Your task to perform on an android device: Open accessibility settings Image 0: 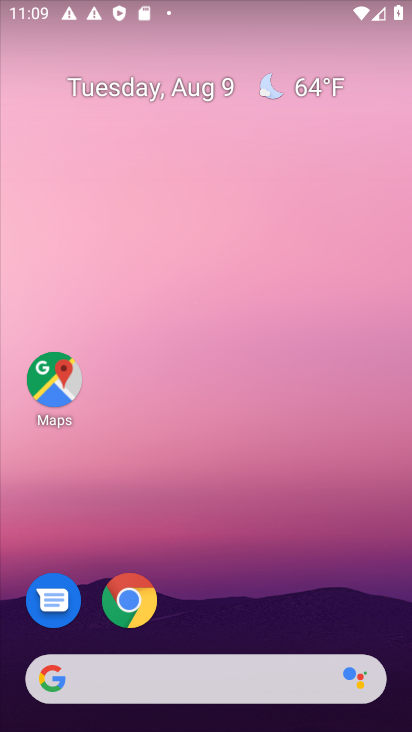
Step 0: drag from (18, 708) to (159, 422)
Your task to perform on an android device: Open accessibility settings Image 1: 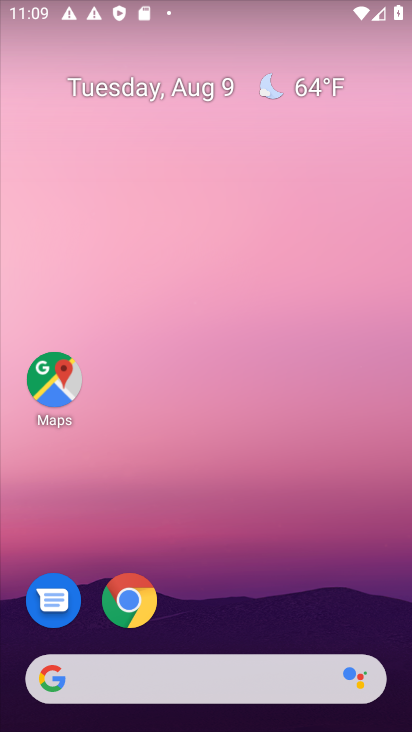
Step 1: drag from (29, 700) to (126, 251)
Your task to perform on an android device: Open accessibility settings Image 2: 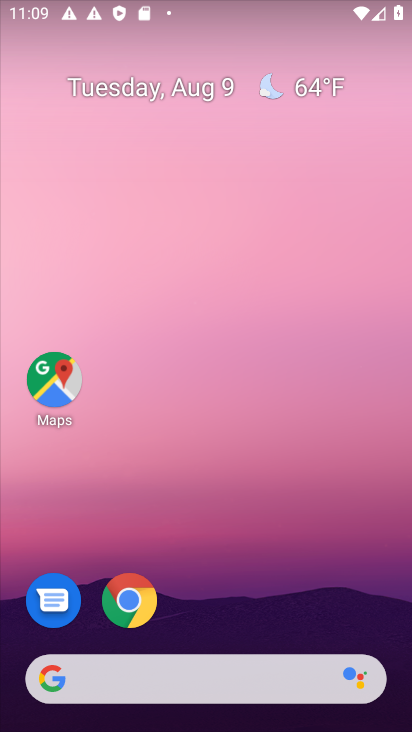
Step 2: drag from (17, 667) to (144, 306)
Your task to perform on an android device: Open accessibility settings Image 3: 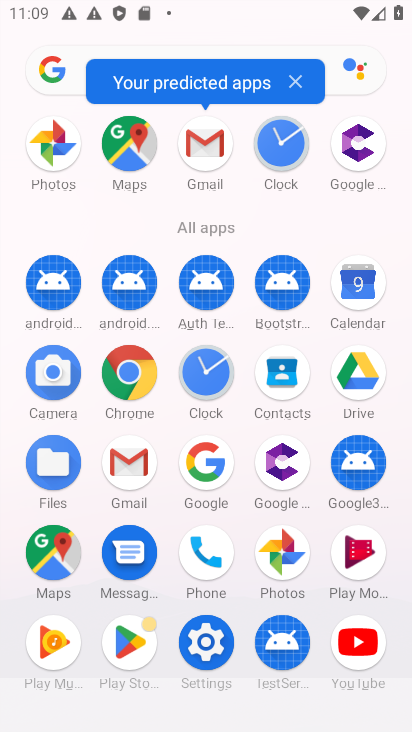
Step 3: click (219, 645)
Your task to perform on an android device: Open accessibility settings Image 4: 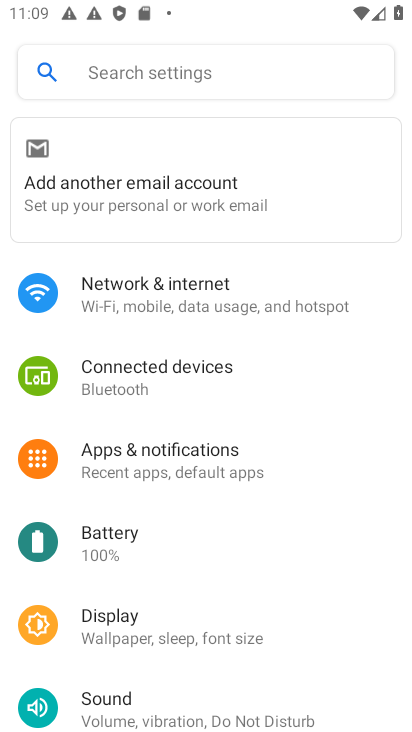
Step 4: drag from (335, 686) to (346, 507)
Your task to perform on an android device: Open accessibility settings Image 5: 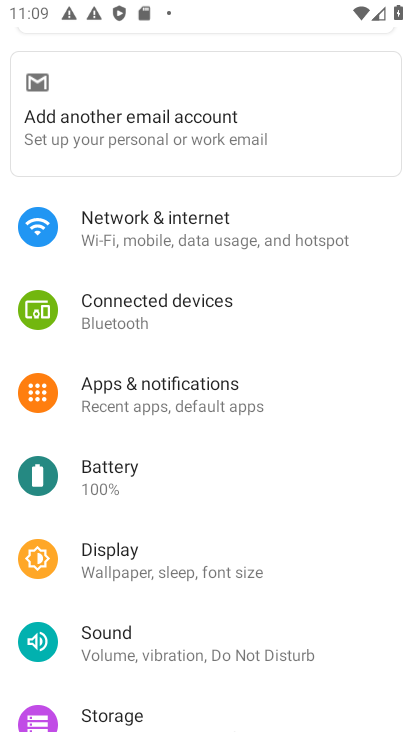
Step 5: drag from (371, 635) to (298, 214)
Your task to perform on an android device: Open accessibility settings Image 6: 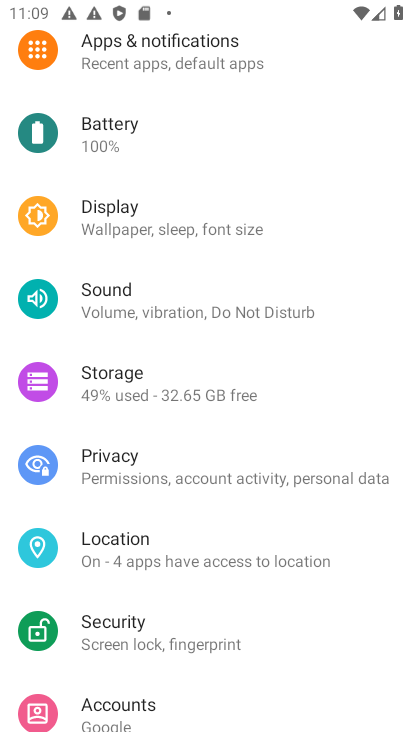
Step 6: drag from (333, 676) to (231, 300)
Your task to perform on an android device: Open accessibility settings Image 7: 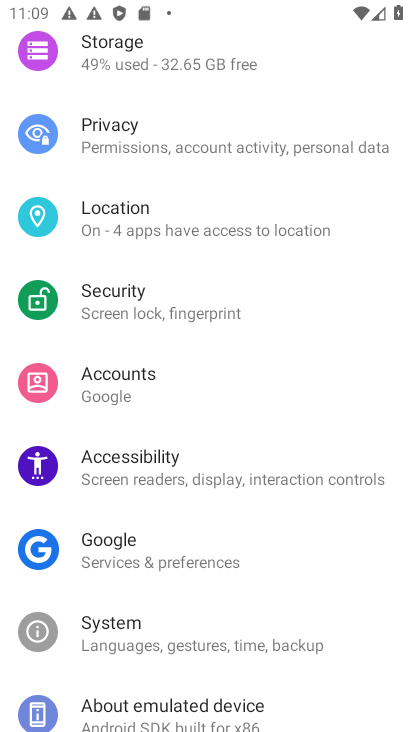
Step 7: click (182, 459)
Your task to perform on an android device: Open accessibility settings Image 8: 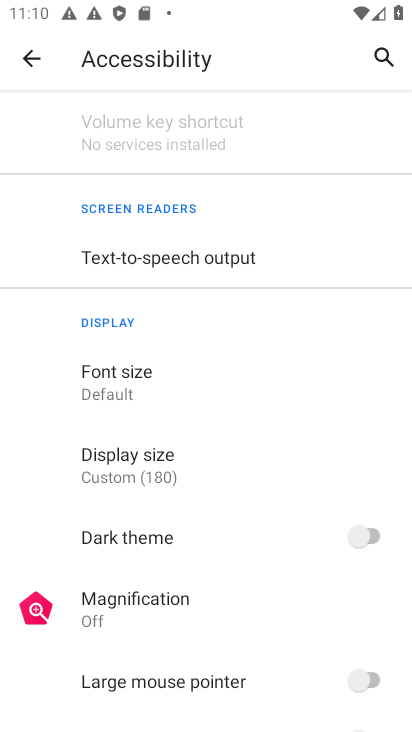
Step 8: task complete